Your task to perform on an android device: add a contact Image 0: 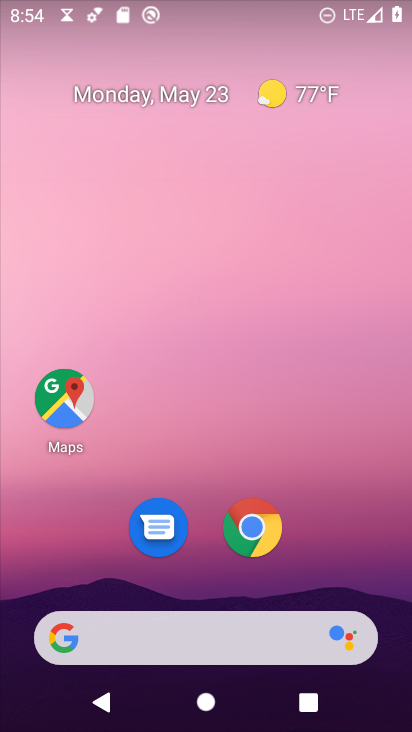
Step 0: press home button
Your task to perform on an android device: add a contact Image 1: 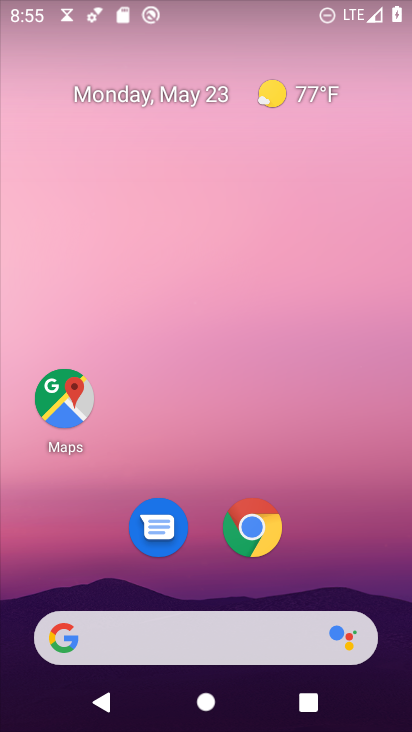
Step 1: drag from (276, 673) to (175, 61)
Your task to perform on an android device: add a contact Image 2: 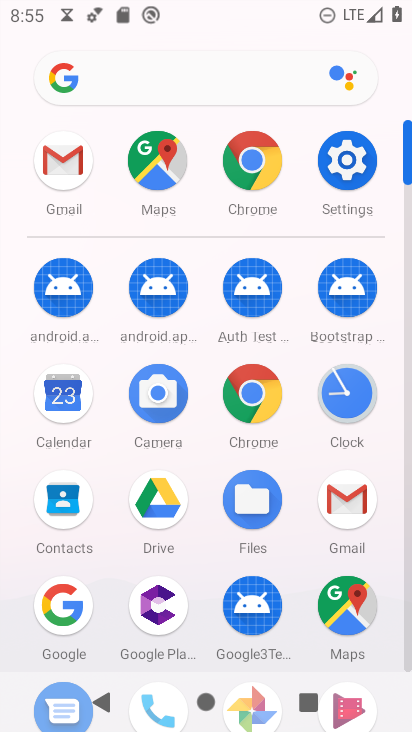
Step 2: drag from (111, 558) to (129, 273)
Your task to perform on an android device: add a contact Image 3: 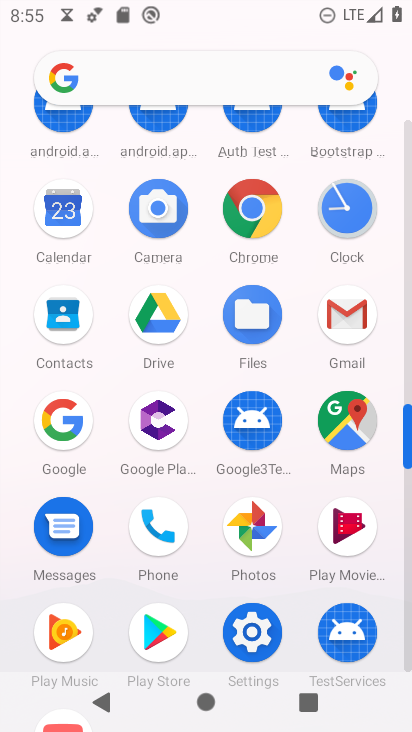
Step 3: click (165, 525)
Your task to perform on an android device: add a contact Image 4: 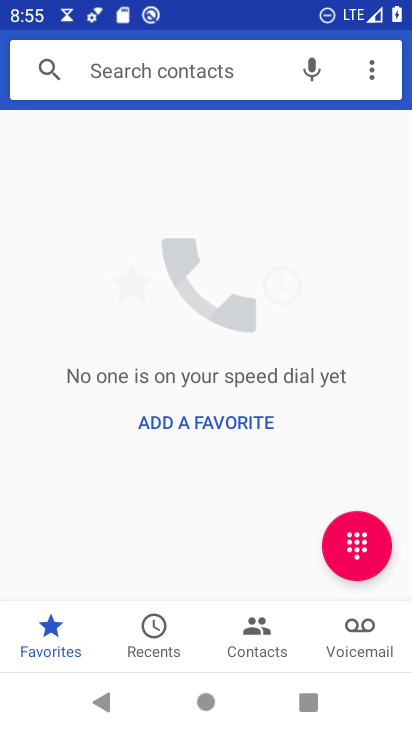
Step 4: click (242, 673)
Your task to perform on an android device: add a contact Image 5: 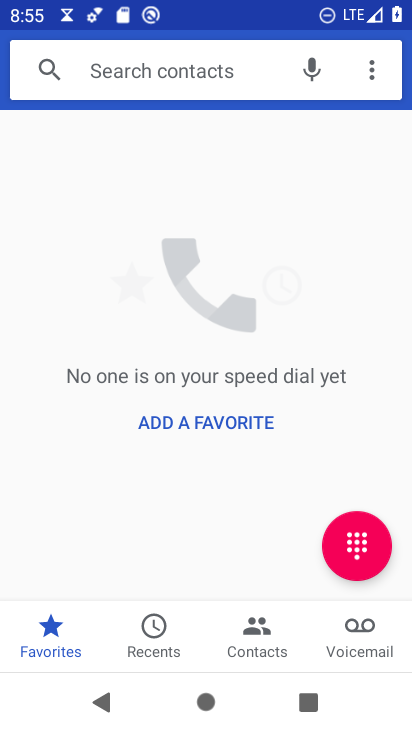
Step 5: click (250, 639)
Your task to perform on an android device: add a contact Image 6: 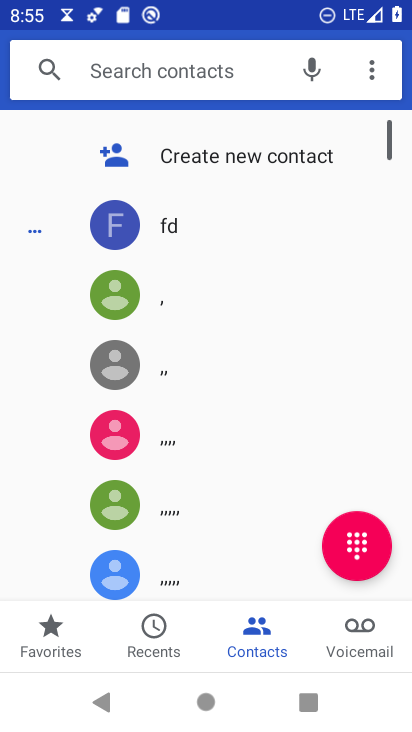
Step 6: click (181, 157)
Your task to perform on an android device: add a contact Image 7: 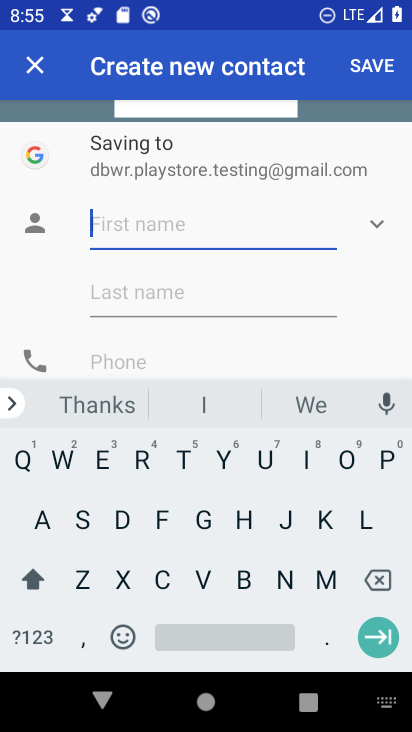
Step 7: click (191, 587)
Your task to perform on an android device: add a contact Image 8: 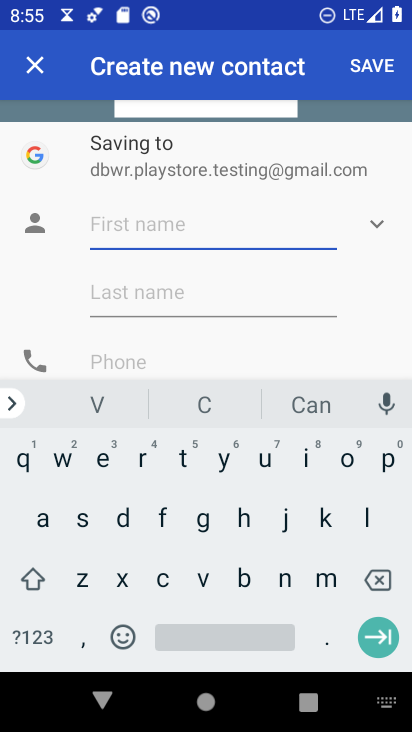
Step 8: click (22, 585)
Your task to perform on an android device: add a contact Image 9: 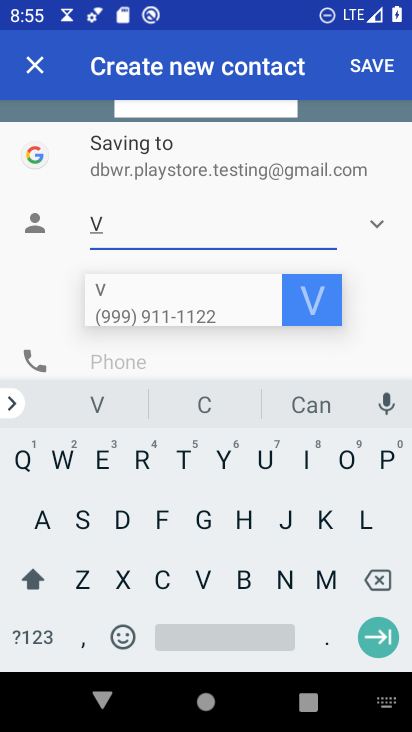
Step 9: click (85, 521)
Your task to perform on an android device: add a contact Image 10: 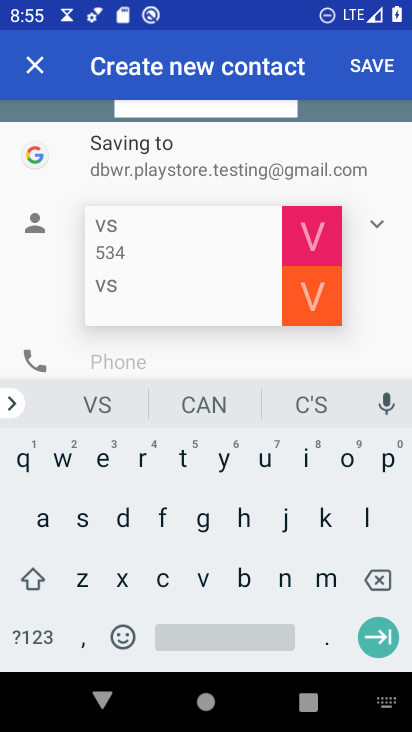
Step 10: click (286, 543)
Your task to perform on an android device: add a contact Image 11: 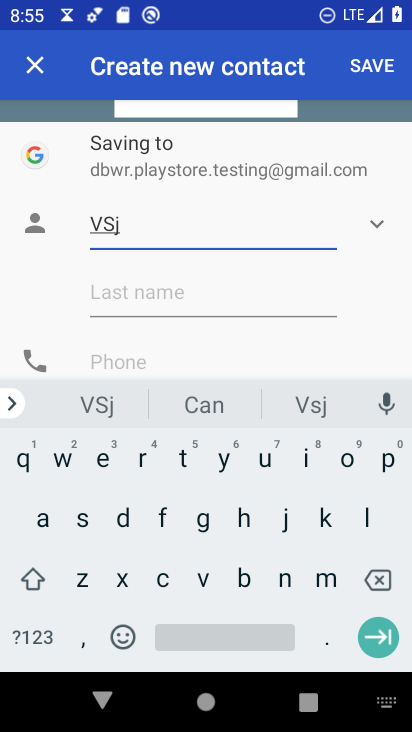
Step 11: click (163, 362)
Your task to perform on an android device: add a contact Image 12: 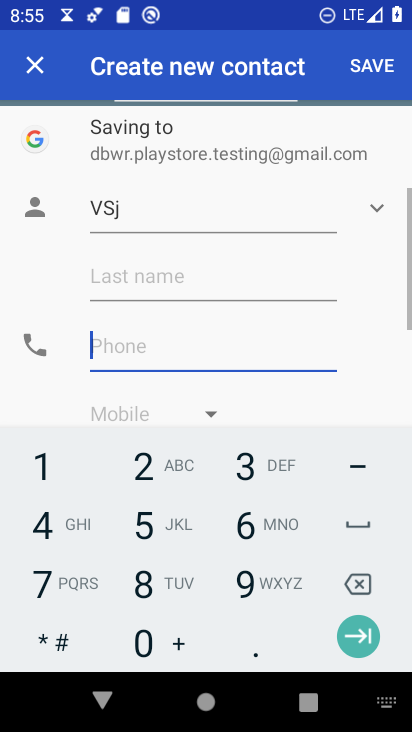
Step 12: click (298, 581)
Your task to perform on an android device: add a contact Image 13: 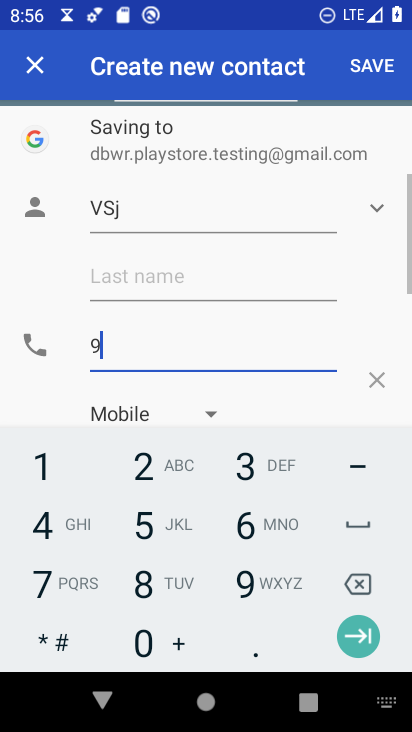
Step 13: click (206, 611)
Your task to perform on an android device: add a contact Image 14: 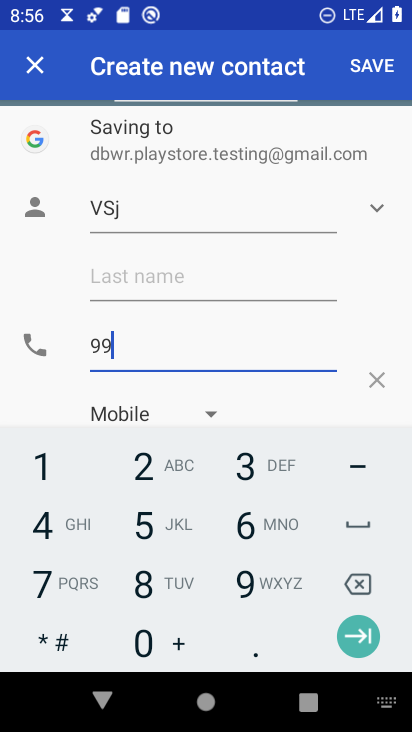
Step 14: click (400, 648)
Your task to perform on an android device: add a contact Image 15: 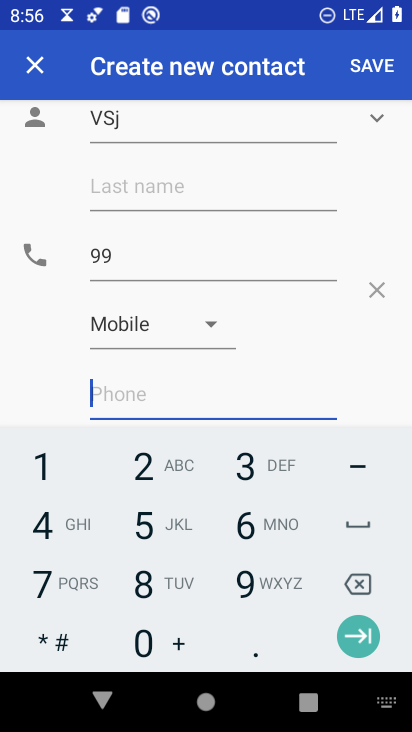
Step 15: click (202, 553)
Your task to perform on an android device: add a contact Image 16: 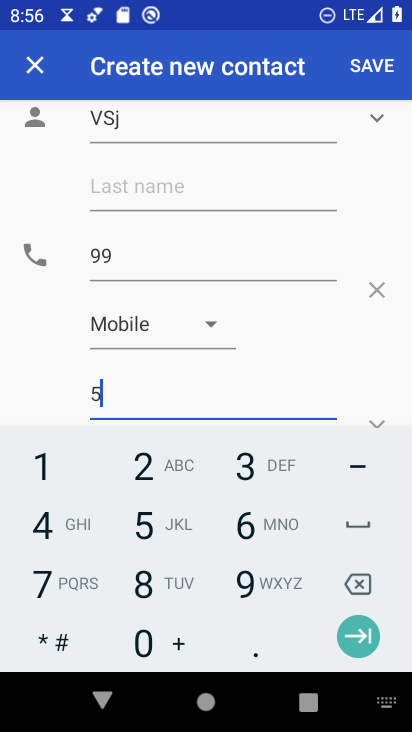
Step 16: click (157, 517)
Your task to perform on an android device: add a contact Image 17: 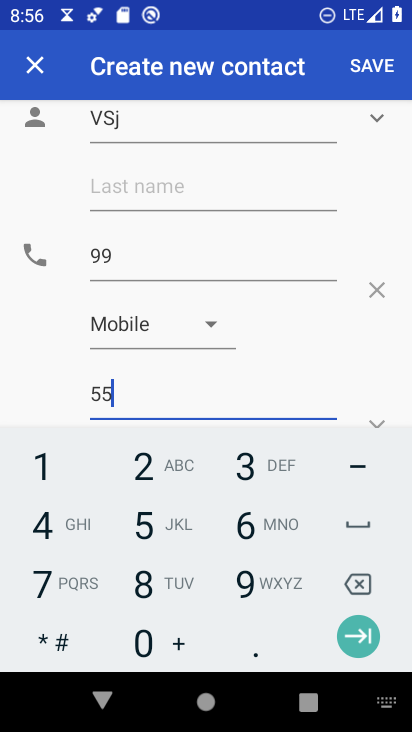
Step 17: click (365, 65)
Your task to perform on an android device: add a contact Image 18: 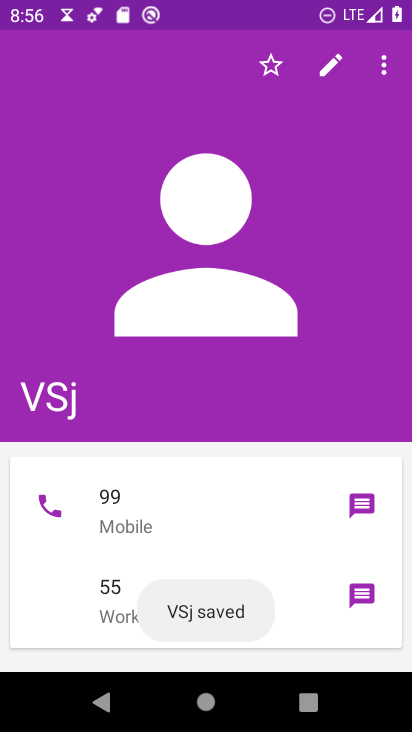
Step 18: task complete